Your task to perform on an android device: turn smart compose on in the gmail app Image 0: 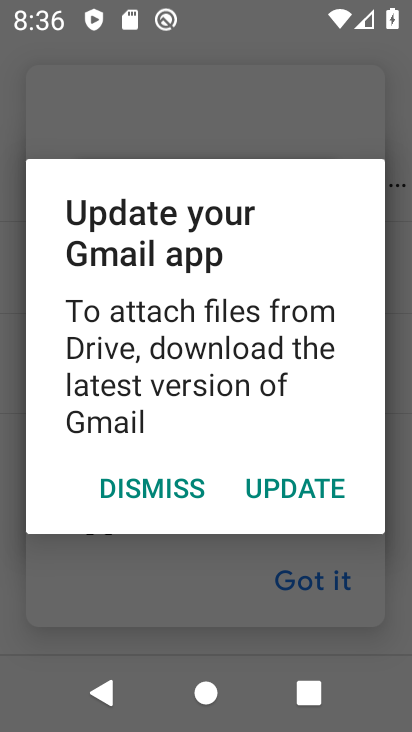
Step 0: press home button
Your task to perform on an android device: turn smart compose on in the gmail app Image 1: 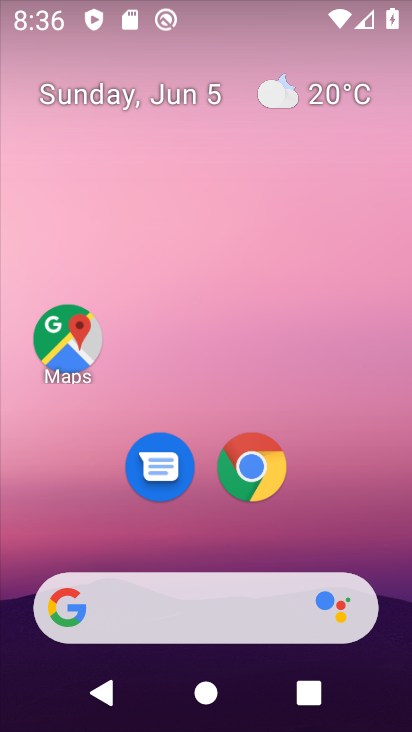
Step 1: drag from (332, 524) to (304, 6)
Your task to perform on an android device: turn smart compose on in the gmail app Image 2: 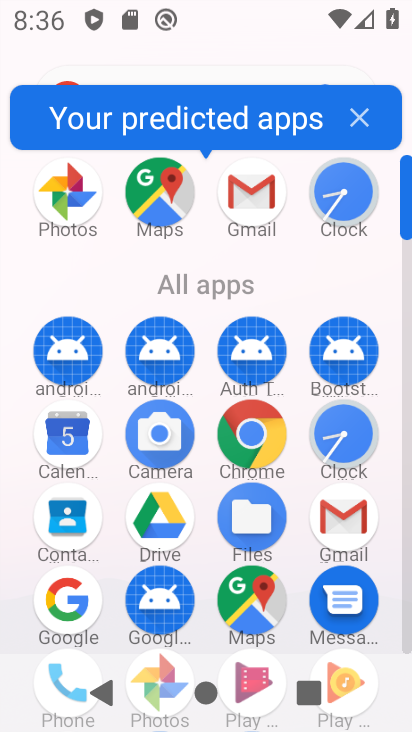
Step 2: click (349, 509)
Your task to perform on an android device: turn smart compose on in the gmail app Image 3: 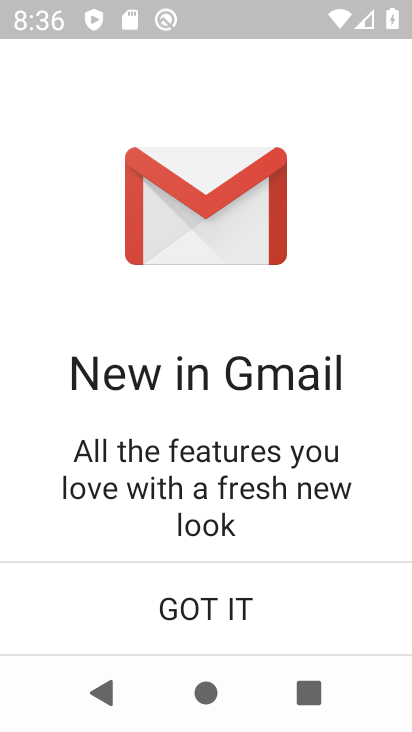
Step 3: click (135, 601)
Your task to perform on an android device: turn smart compose on in the gmail app Image 4: 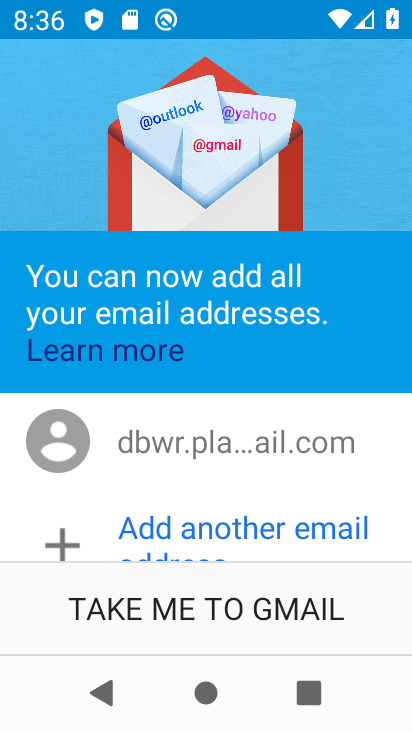
Step 4: click (218, 611)
Your task to perform on an android device: turn smart compose on in the gmail app Image 5: 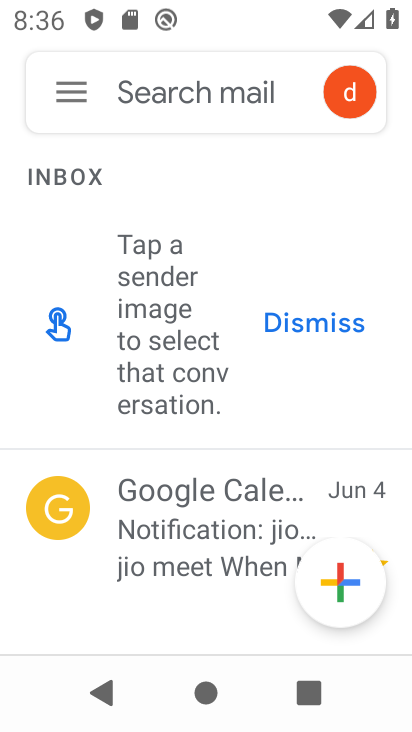
Step 5: click (73, 91)
Your task to perform on an android device: turn smart compose on in the gmail app Image 6: 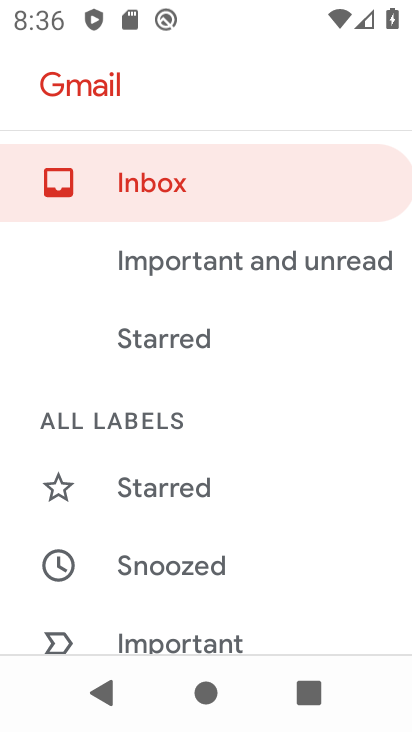
Step 6: drag from (233, 580) to (191, 93)
Your task to perform on an android device: turn smart compose on in the gmail app Image 7: 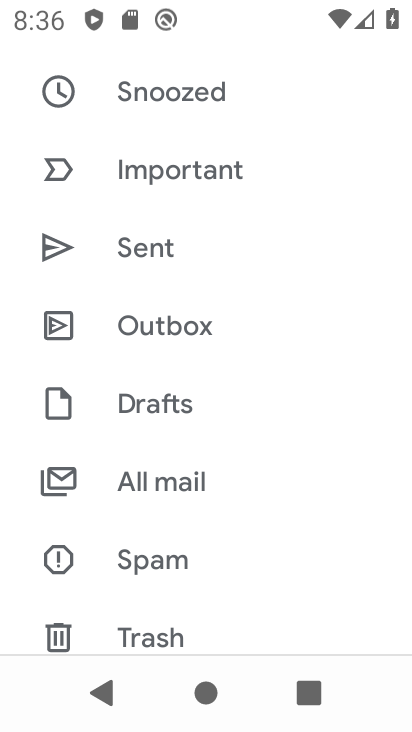
Step 7: drag from (163, 609) to (170, 123)
Your task to perform on an android device: turn smart compose on in the gmail app Image 8: 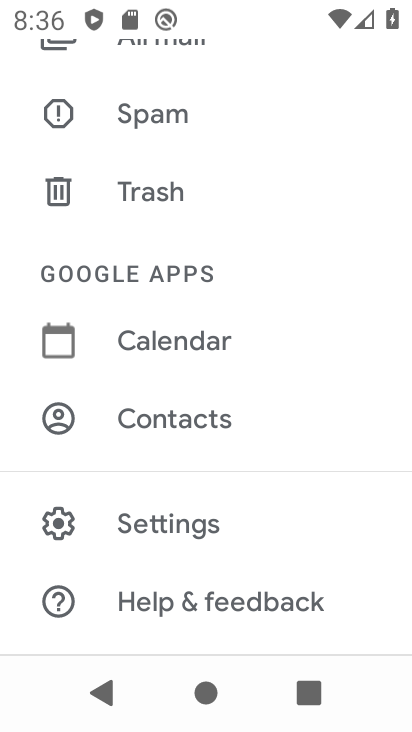
Step 8: click (138, 525)
Your task to perform on an android device: turn smart compose on in the gmail app Image 9: 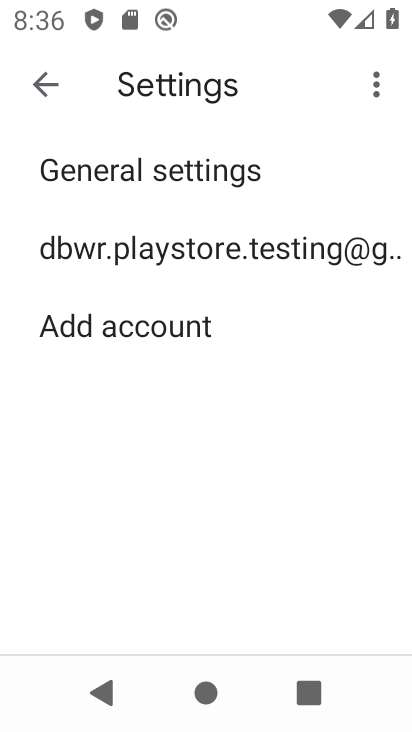
Step 9: click (166, 251)
Your task to perform on an android device: turn smart compose on in the gmail app Image 10: 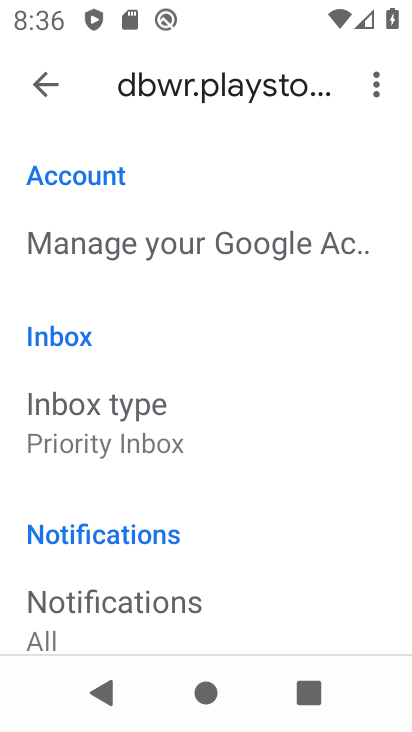
Step 10: task complete